Your task to perform on an android device: open app "Spotify" (install if not already installed) Image 0: 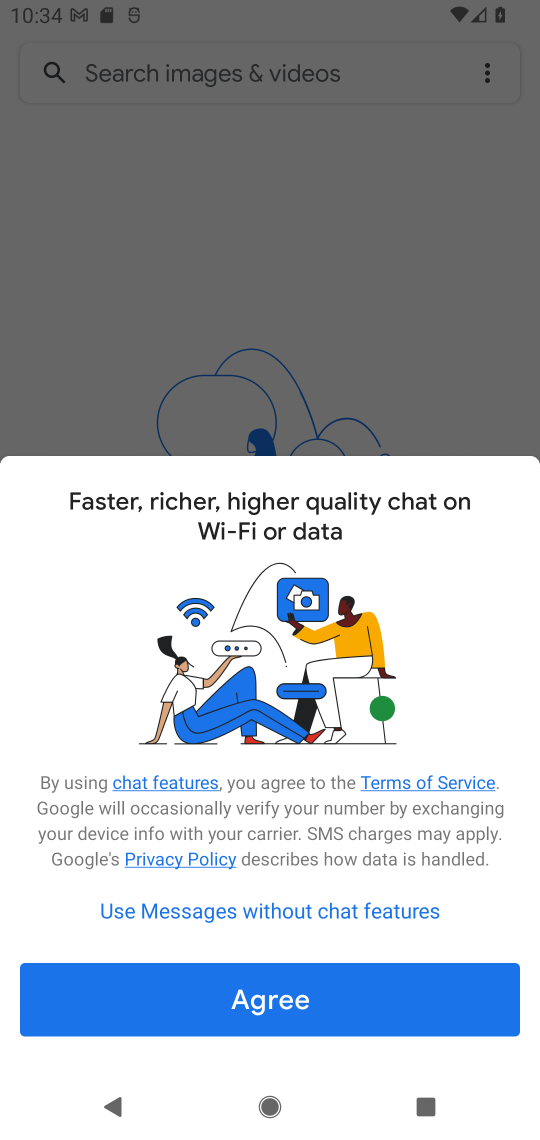
Step 0: press home button
Your task to perform on an android device: open app "Spotify" (install if not already installed) Image 1: 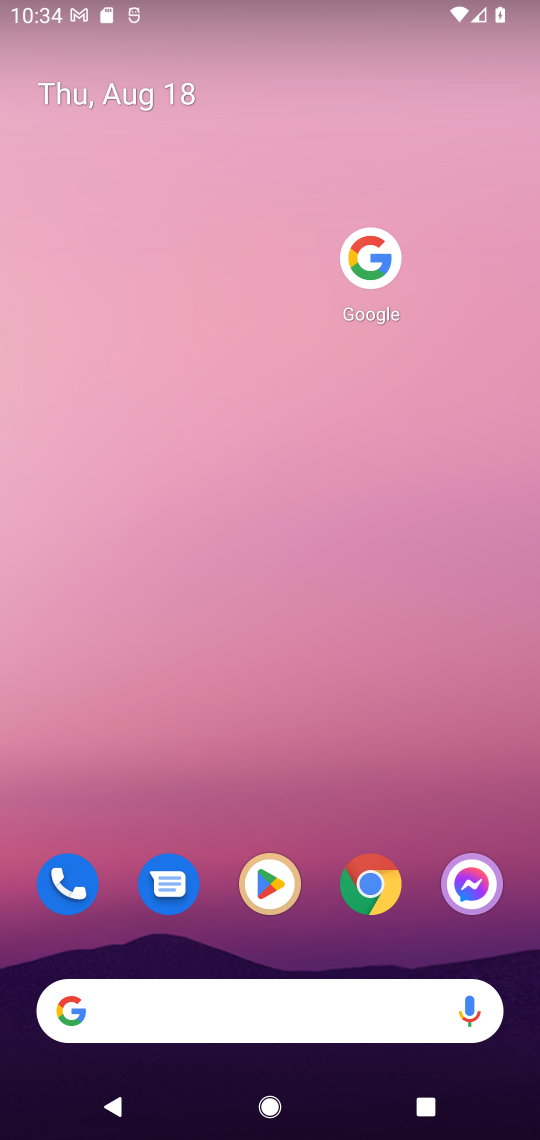
Step 1: click (272, 904)
Your task to perform on an android device: open app "Spotify" (install if not already installed) Image 2: 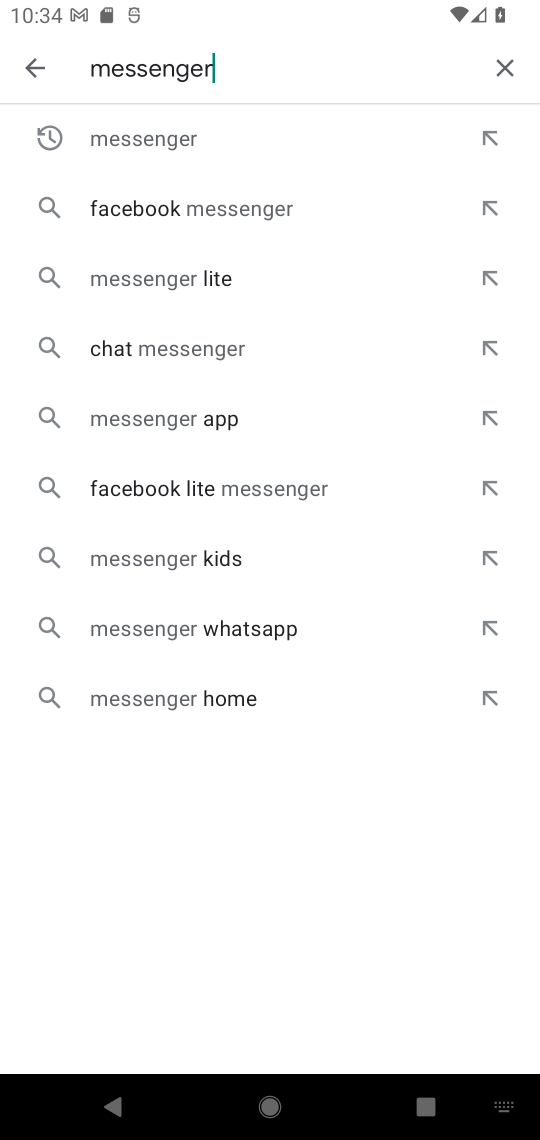
Step 2: click (515, 92)
Your task to perform on an android device: open app "Spotify" (install if not already installed) Image 3: 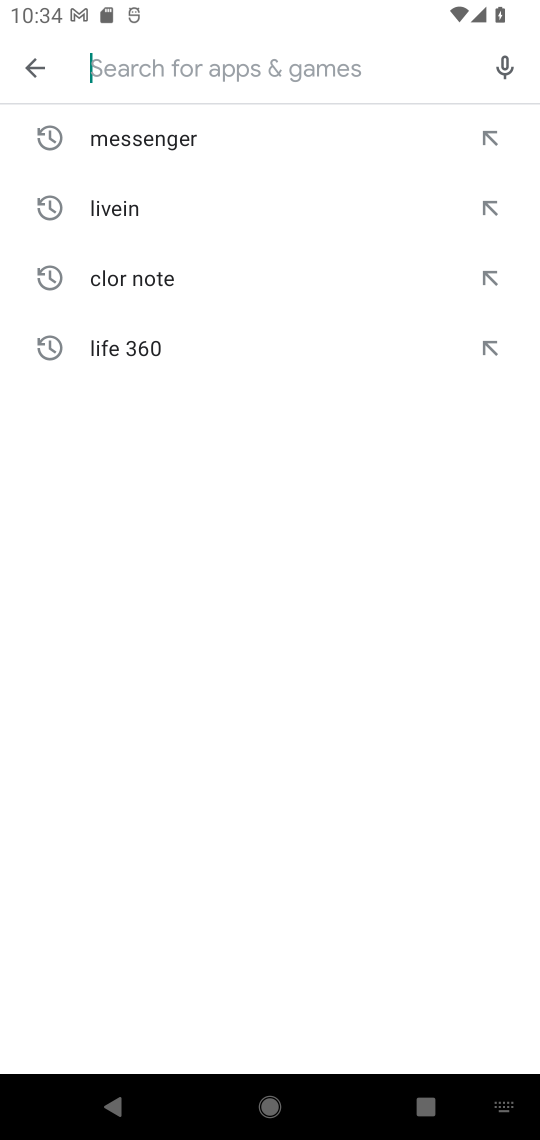
Step 3: type "spotify"
Your task to perform on an android device: open app "Spotify" (install if not already installed) Image 4: 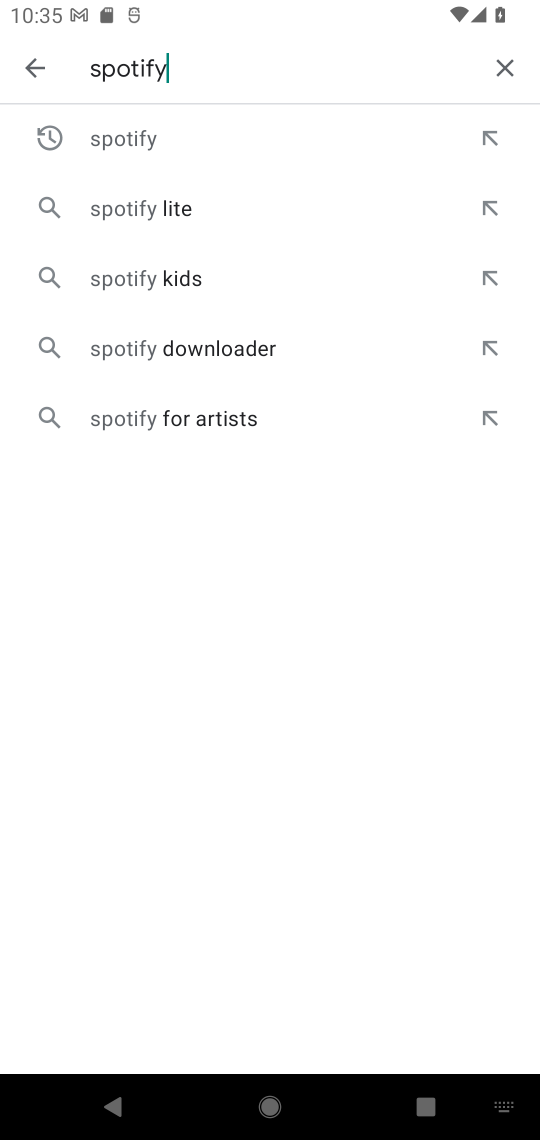
Step 4: click (159, 165)
Your task to perform on an android device: open app "Spotify" (install if not already installed) Image 5: 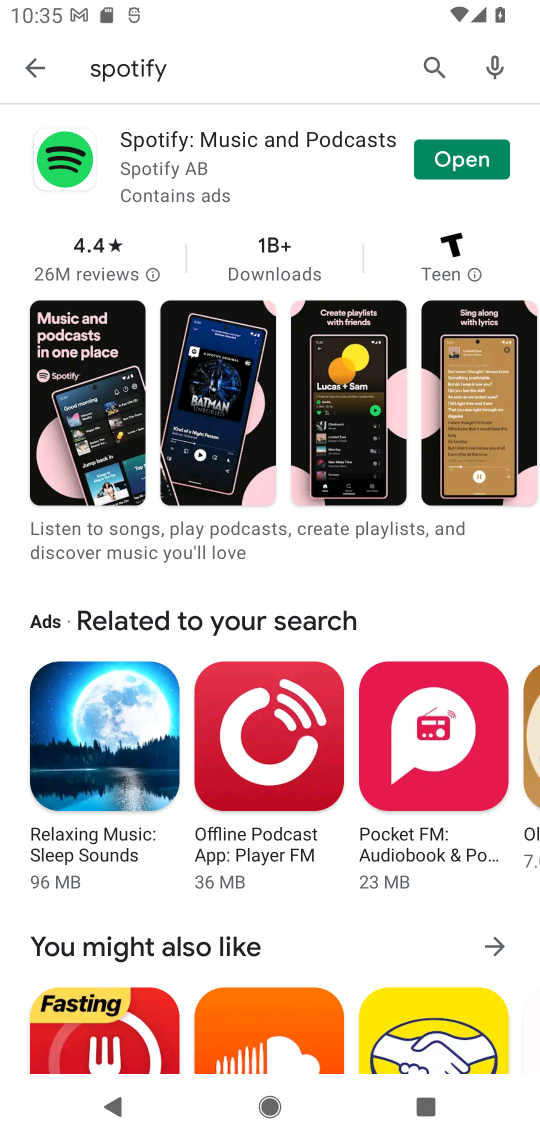
Step 5: click (499, 160)
Your task to perform on an android device: open app "Spotify" (install if not already installed) Image 6: 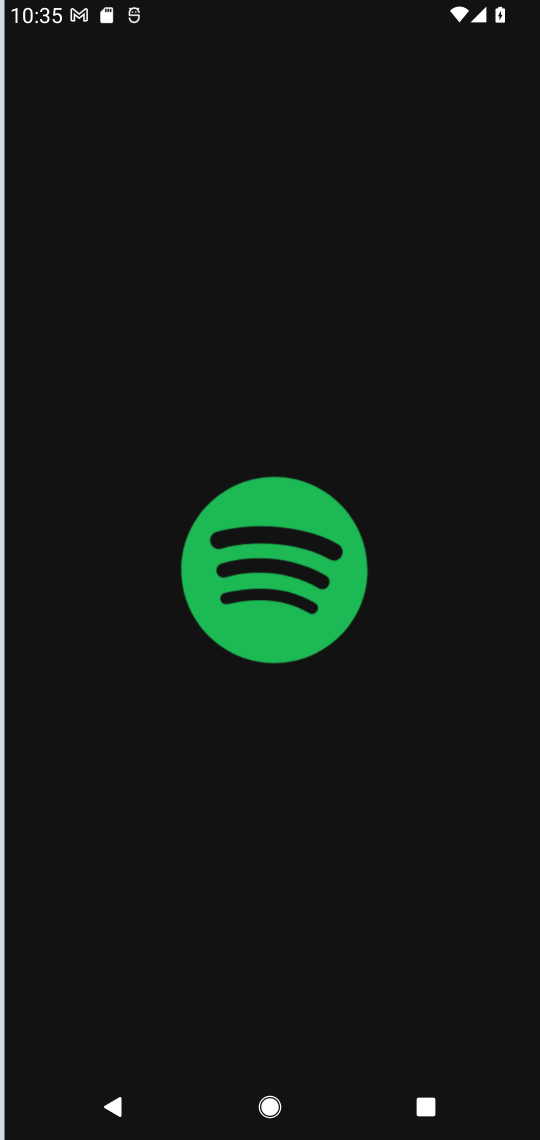
Step 6: task complete